Your task to perform on an android device: Search for Italian restaurants on Maps Image 0: 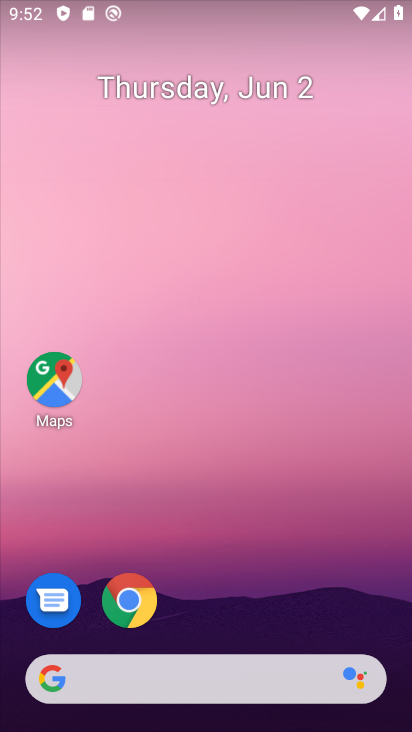
Step 0: click (51, 385)
Your task to perform on an android device: Search for Italian restaurants on Maps Image 1: 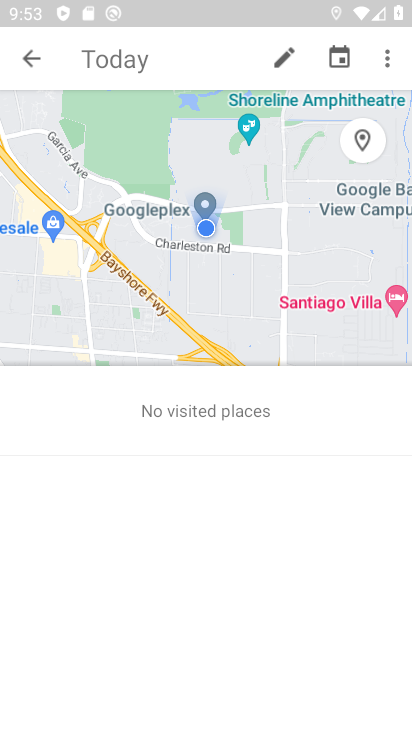
Step 1: click (56, 59)
Your task to perform on an android device: Search for Italian restaurants on Maps Image 2: 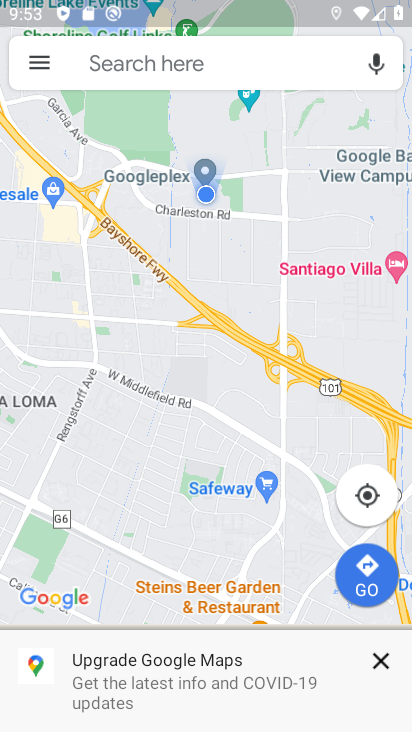
Step 2: click (140, 72)
Your task to perform on an android device: Search for Italian restaurants on Maps Image 3: 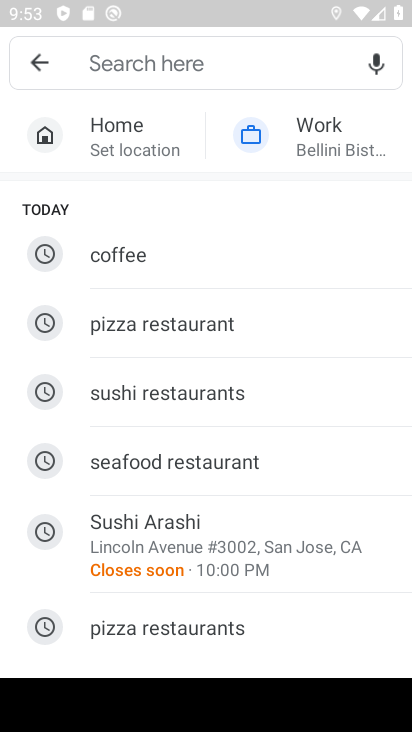
Step 3: type "italian"
Your task to perform on an android device: Search for Italian restaurants on Maps Image 4: 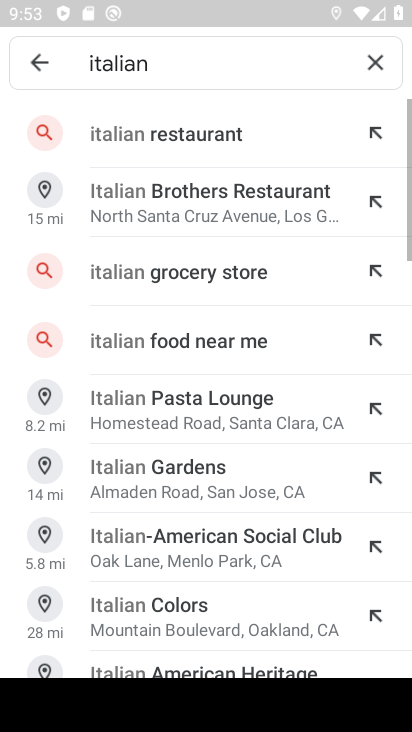
Step 4: click (175, 146)
Your task to perform on an android device: Search for Italian restaurants on Maps Image 5: 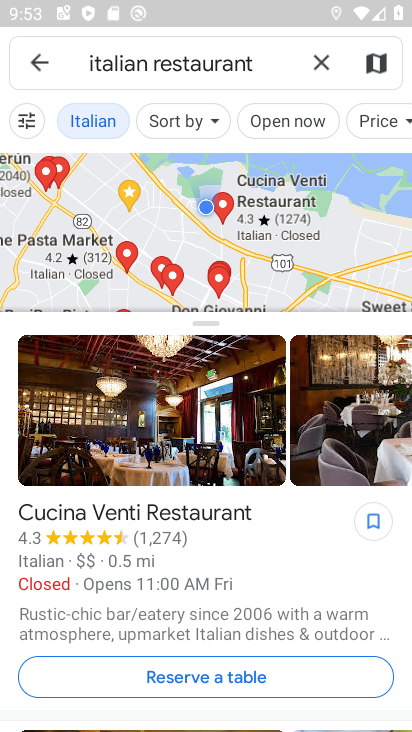
Step 5: task complete